Your task to perform on an android device: Open Google Maps Image 0: 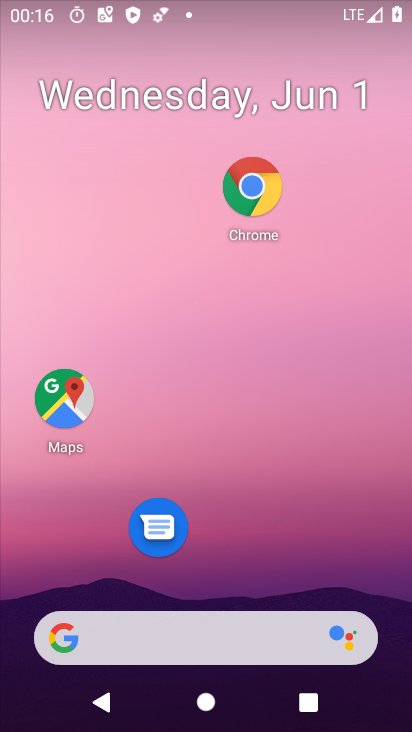
Step 0: click (192, 119)
Your task to perform on an android device: Open Google Maps Image 1: 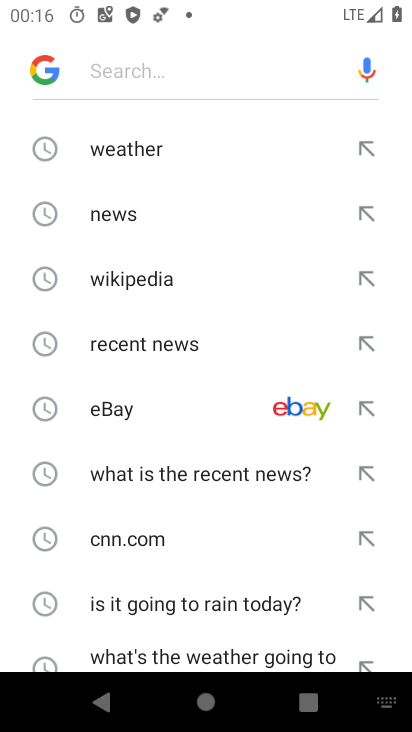
Step 1: press home button
Your task to perform on an android device: Open Google Maps Image 2: 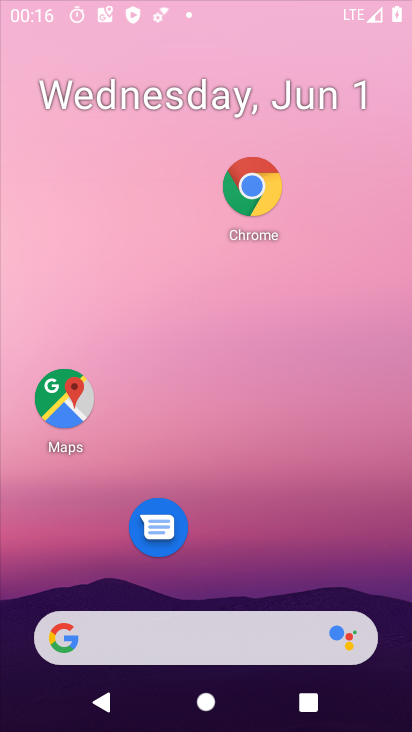
Step 2: drag from (190, 599) to (215, 152)
Your task to perform on an android device: Open Google Maps Image 3: 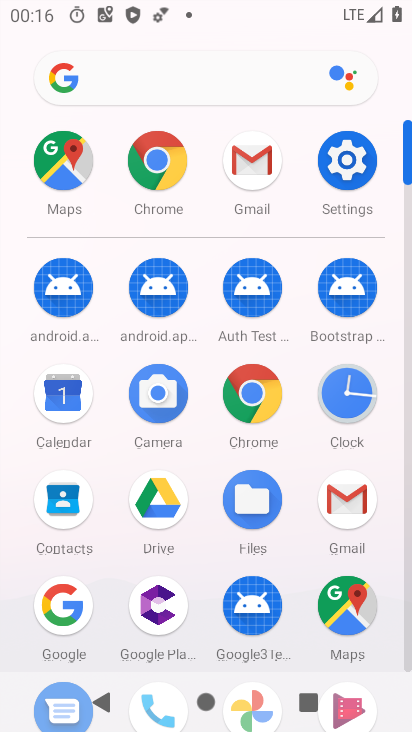
Step 3: click (358, 611)
Your task to perform on an android device: Open Google Maps Image 4: 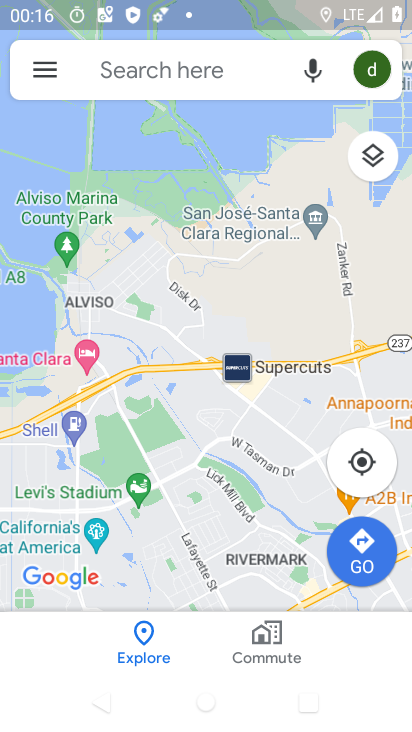
Step 4: drag from (199, 531) to (182, 143)
Your task to perform on an android device: Open Google Maps Image 5: 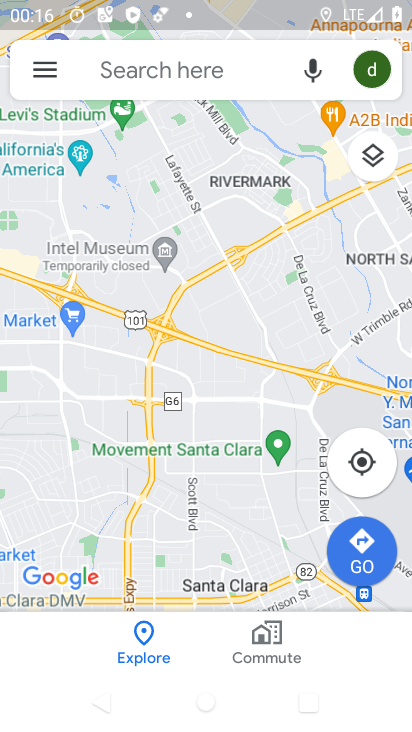
Step 5: drag from (211, 574) to (230, 169)
Your task to perform on an android device: Open Google Maps Image 6: 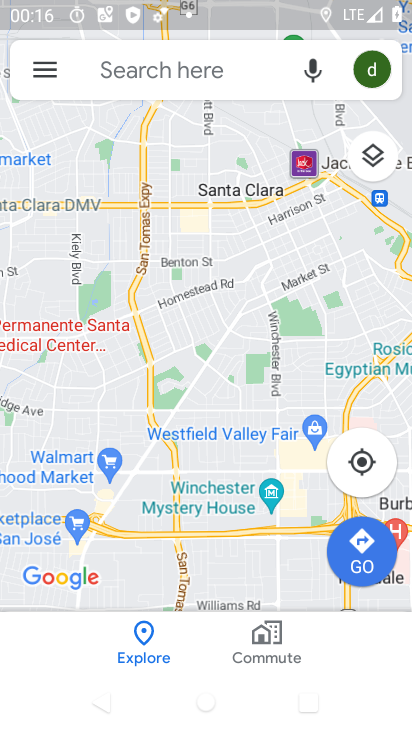
Step 6: click (138, 76)
Your task to perform on an android device: Open Google Maps Image 7: 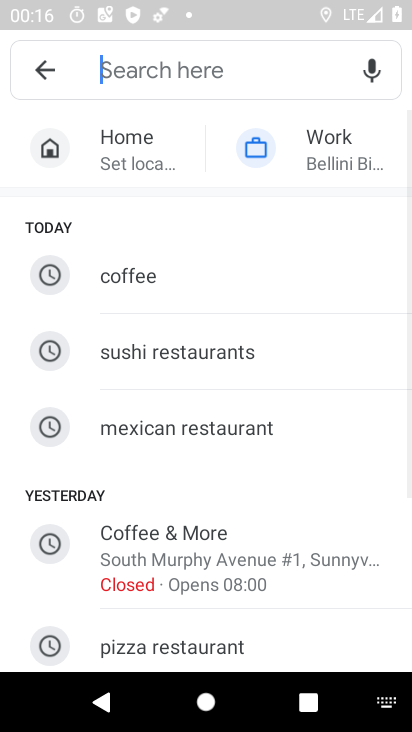
Step 7: click (37, 70)
Your task to perform on an android device: Open Google Maps Image 8: 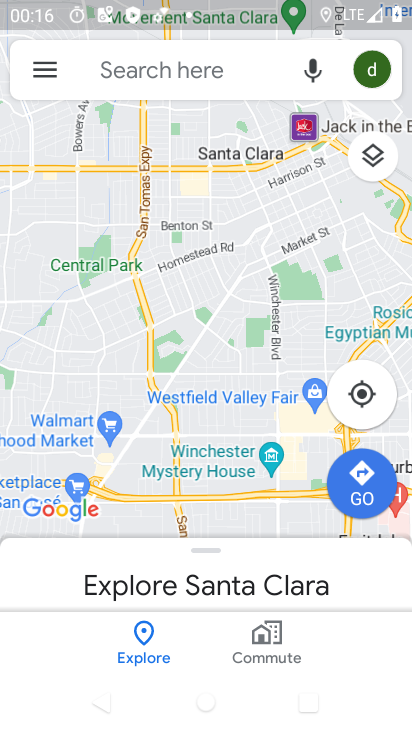
Step 8: task complete